Your task to perform on an android device: turn off priority inbox in the gmail app Image 0: 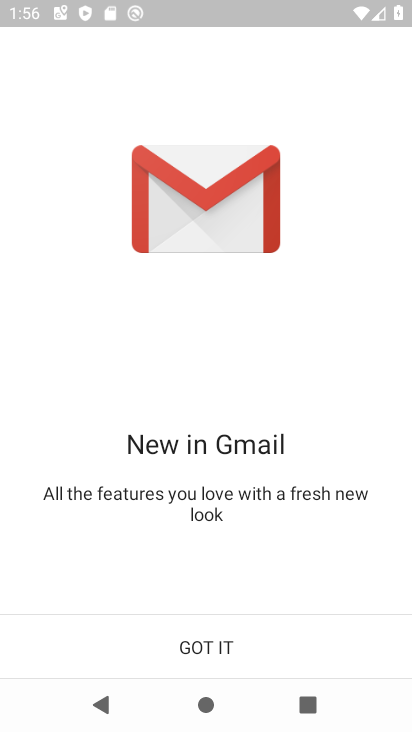
Step 0: click (206, 656)
Your task to perform on an android device: turn off priority inbox in the gmail app Image 1: 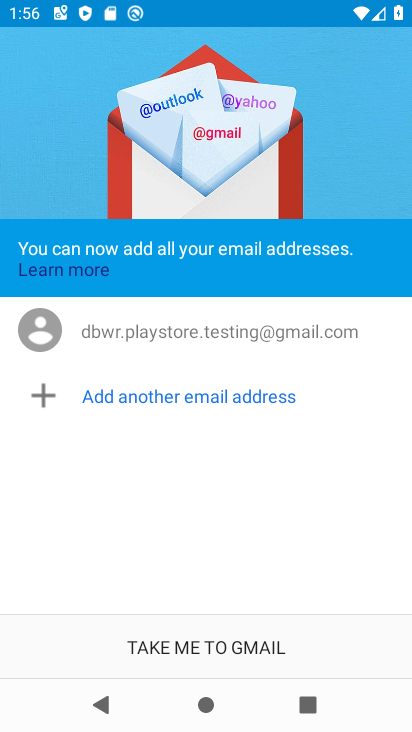
Step 1: click (206, 656)
Your task to perform on an android device: turn off priority inbox in the gmail app Image 2: 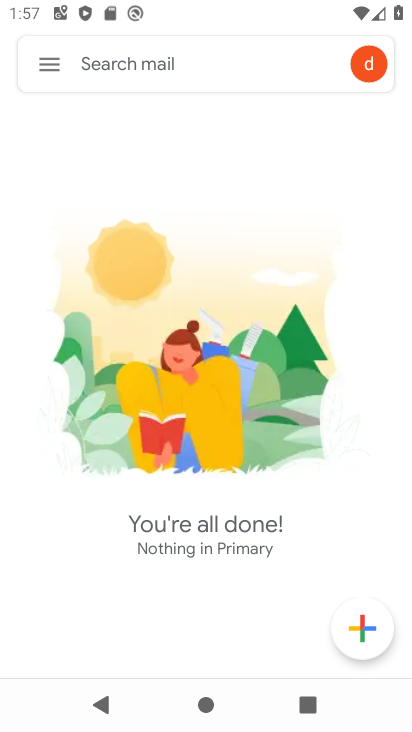
Step 2: click (55, 74)
Your task to perform on an android device: turn off priority inbox in the gmail app Image 3: 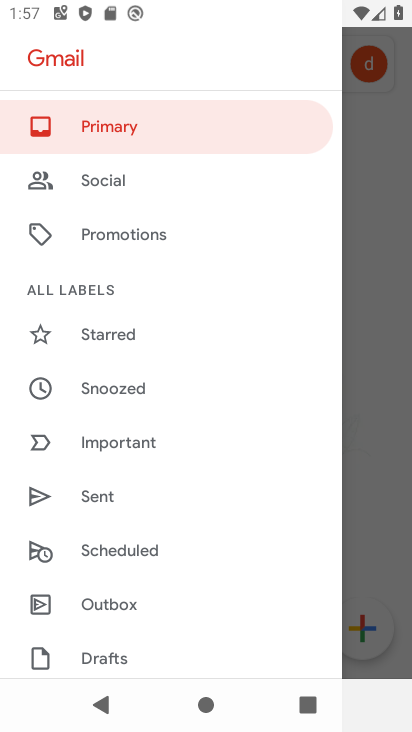
Step 3: drag from (240, 452) to (190, 174)
Your task to perform on an android device: turn off priority inbox in the gmail app Image 4: 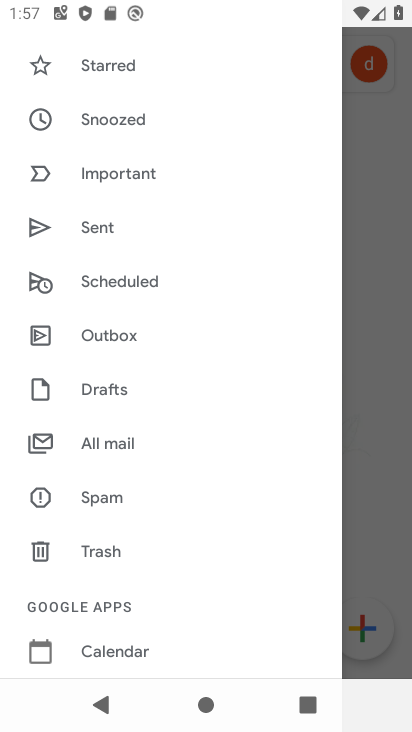
Step 4: drag from (156, 581) to (101, 283)
Your task to perform on an android device: turn off priority inbox in the gmail app Image 5: 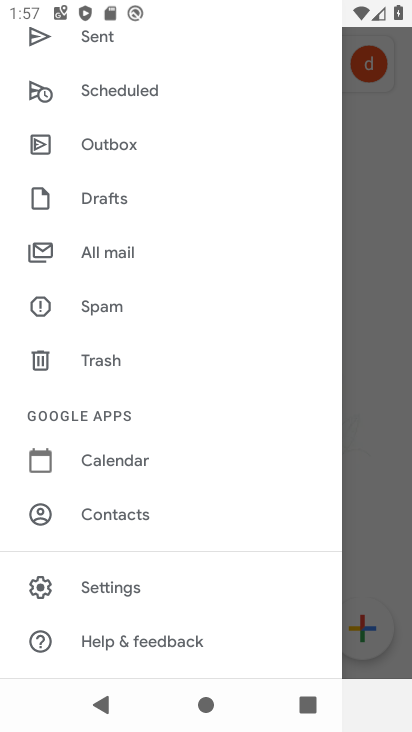
Step 5: click (110, 586)
Your task to perform on an android device: turn off priority inbox in the gmail app Image 6: 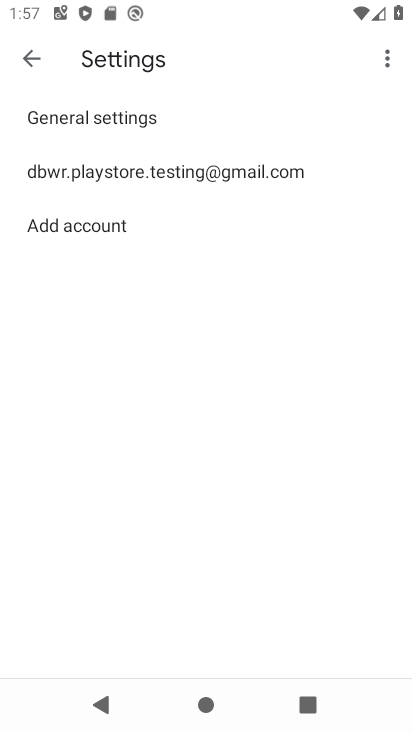
Step 6: click (49, 188)
Your task to perform on an android device: turn off priority inbox in the gmail app Image 7: 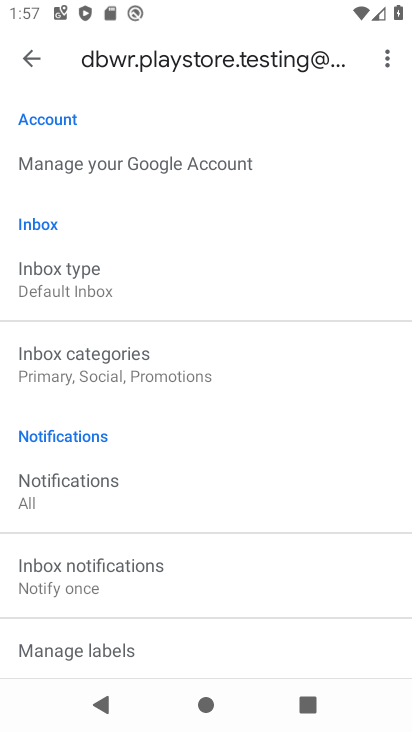
Step 7: click (39, 309)
Your task to perform on an android device: turn off priority inbox in the gmail app Image 8: 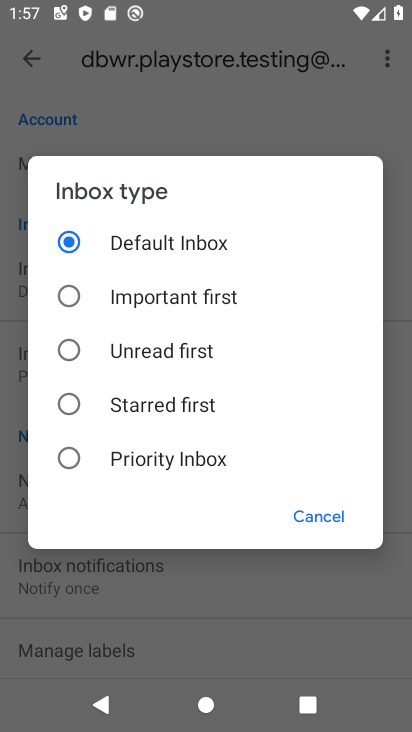
Step 8: task complete